Your task to perform on an android device: Go to Maps Image 0: 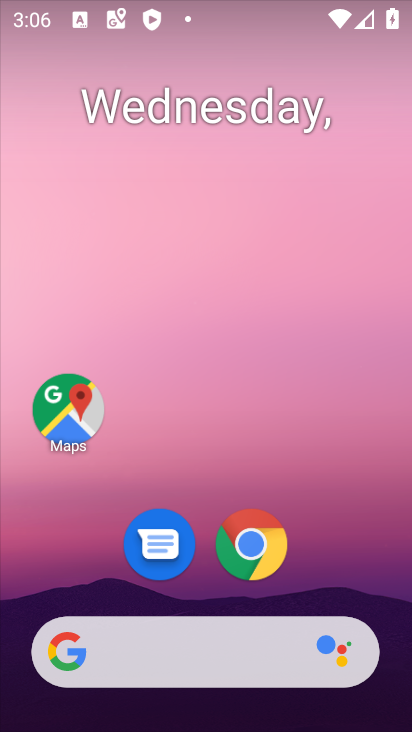
Step 0: click (66, 411)
Your task to perform on an android device: Go to Maps Image 1: 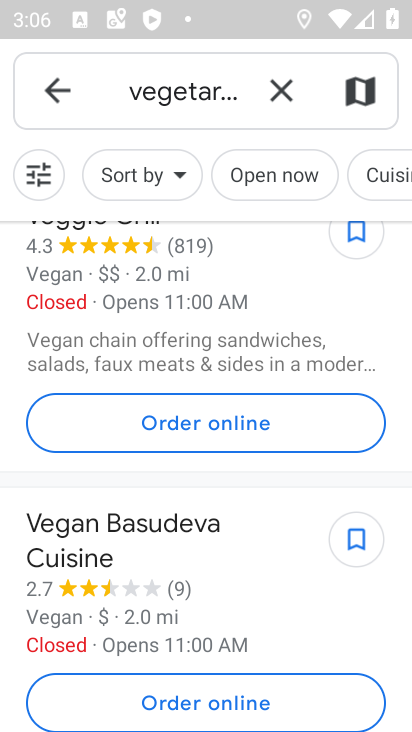
Step 1: click (282, 86)
Your task to perform on an android device: Go to Maps Image 2: 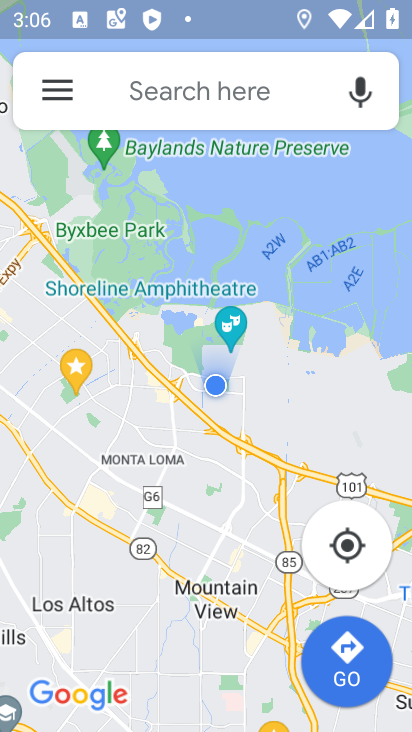
Step 2: task complete